Your task to perform on an android device: Open Youtube and go to the subscriptions tab Image 0: 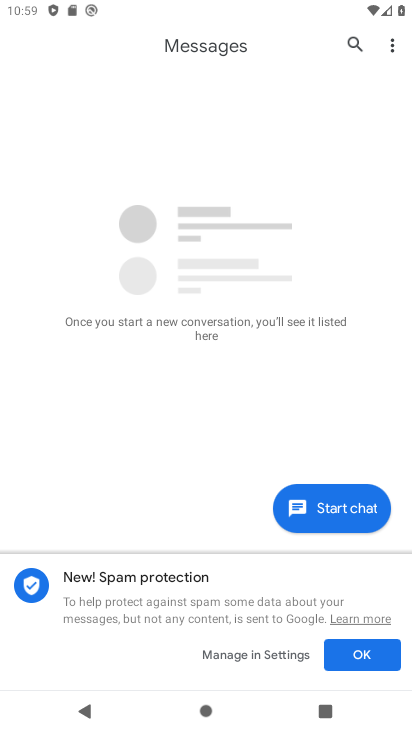
Step 0: press home button
Your task to perform on an android device: Open Youtube and go to the subscriptions tab Image 1: 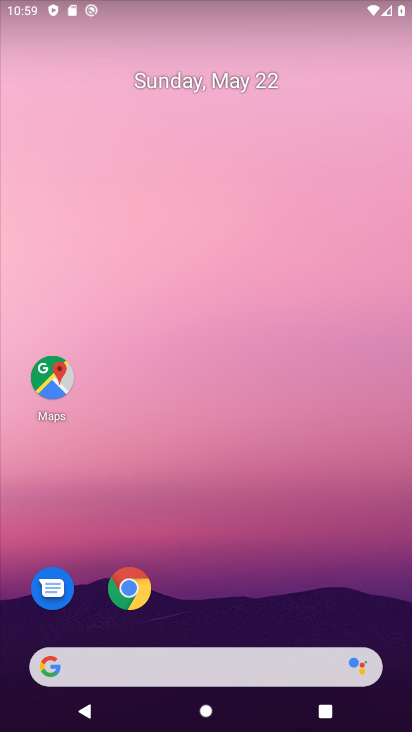
Step 1: drag from (233, 622) to (208, 123)
Your task to perform on an android device: Open Youtube and go to the subscriptions tab Image 2: 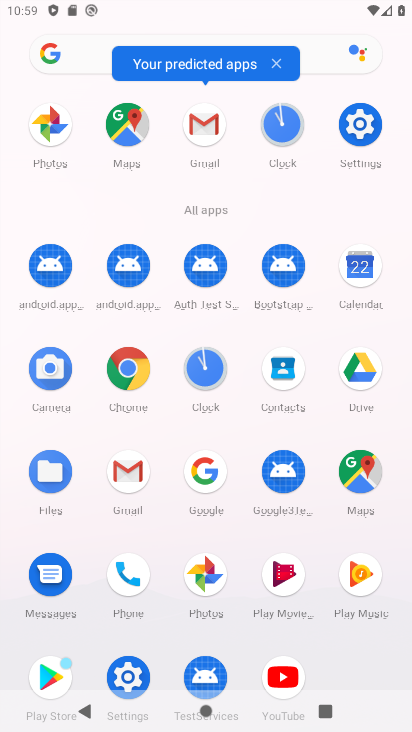
Step 2: click (278, 657)
Your task to perform on an android device: Open Youtube and go to the subscriptions tab Image 3: 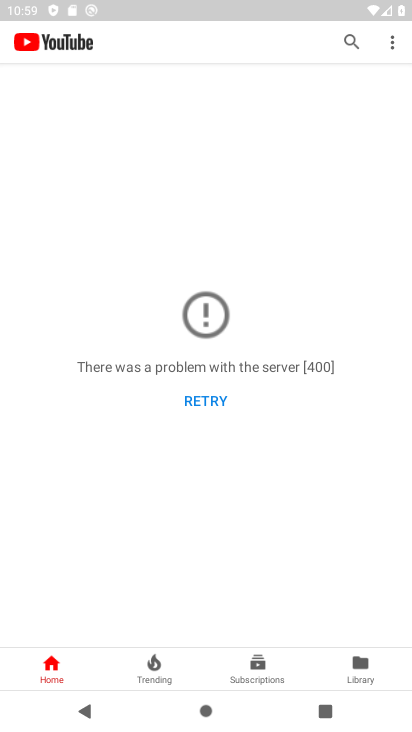
Step 3: click (278, 657)
Your task to perform on an android device: Open Youtube and go to the subscriptions tab Image 4: 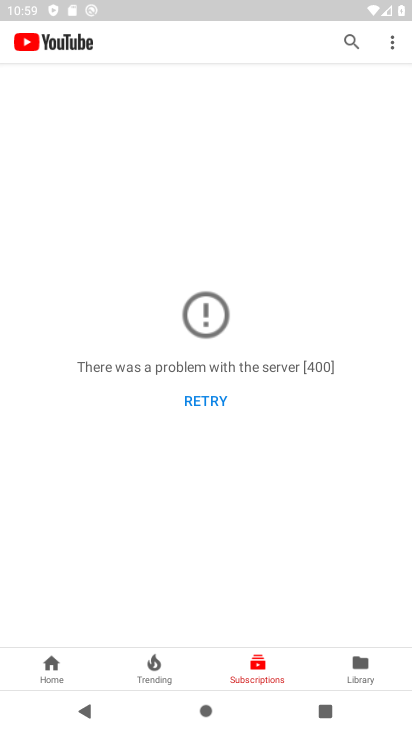
Step 4: task complete